Your task to perform on an android device: Go to Google maps Image 0: 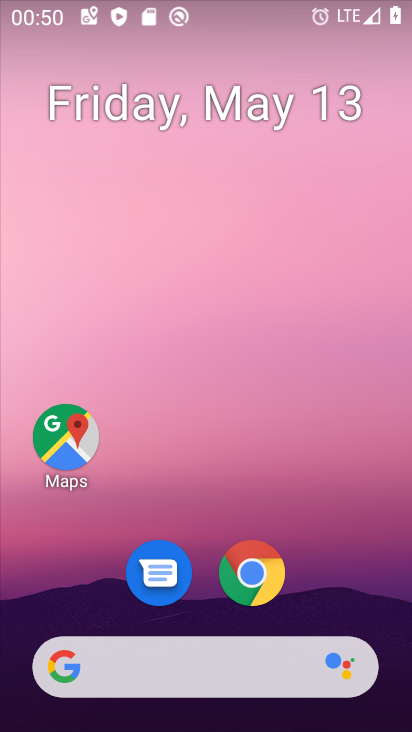
Step 0: click (73, 450)
Your task to perform on an android device: Go to Google maps Image 1: 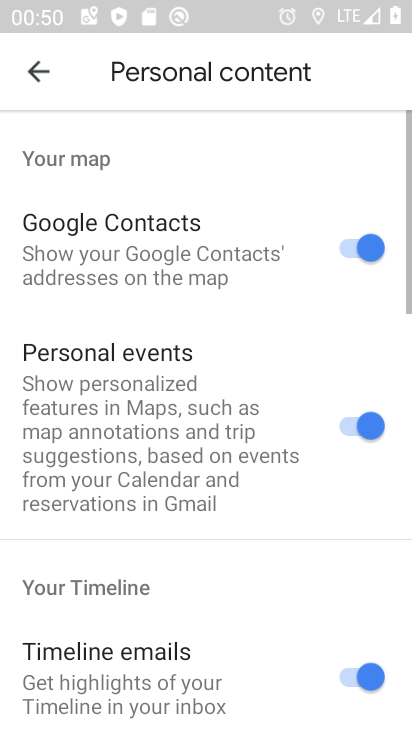
Step 1: click (44, 70)
Your task to perform on an android device: Go to Google maps Image 2: 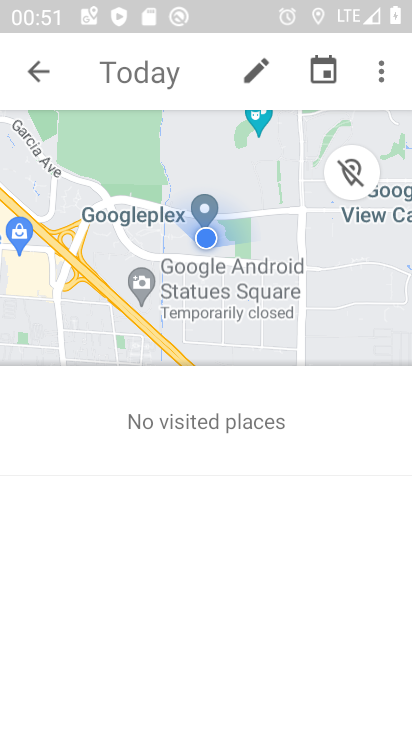
Step 2: click (44, 76)
Your task to perform on an android device: Go to Google maps Image 3: 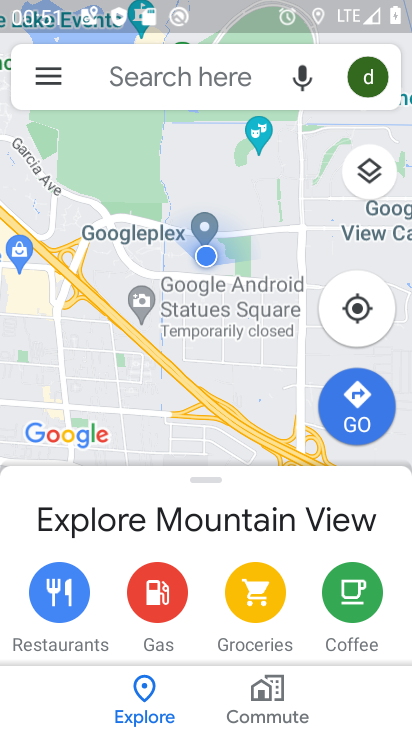
Step 3: task complete